Your task to perform on an android device: open chrome privacy settings Image 0: 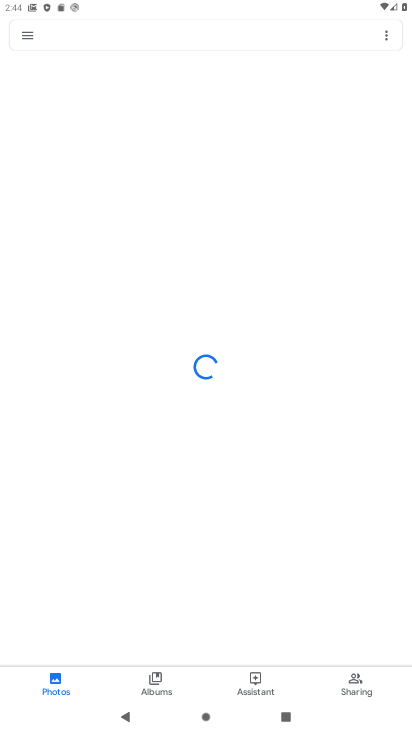
Step 0: press home button
Your task to perform on an android device: open chrome privacy settings Image 1: 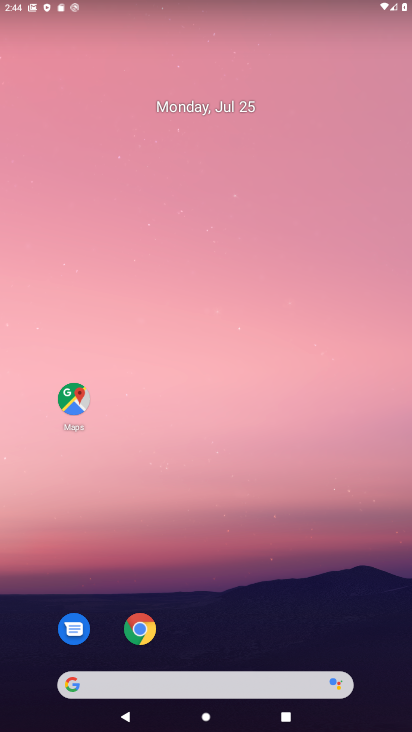
Step 1: drag from (239, 623) to (177, 148)
Your task to perform on an android device: open chrome privacy settings Image 2: 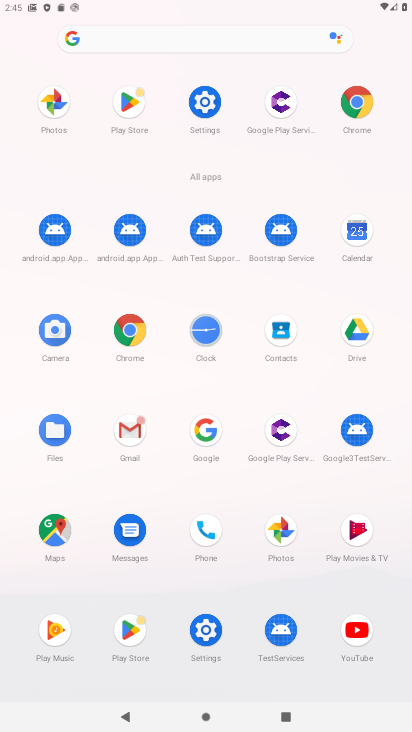
Step 2: click (344, 109)
Your task to perform on an android device: open chrome privacy settings Image 3: 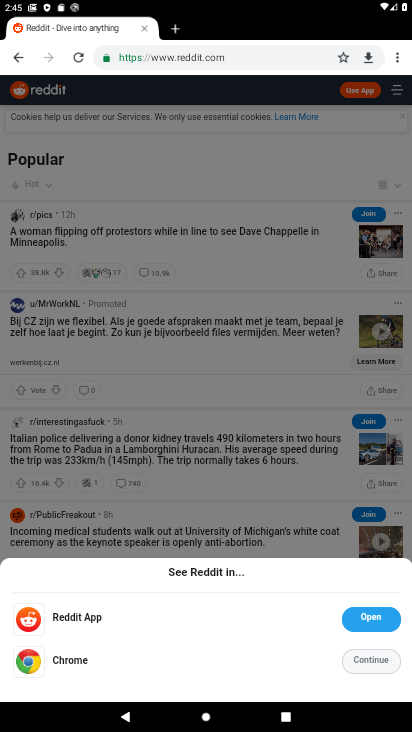
Step 3: click (398, 48)
Your task to perform on an android device: open chrome privacy settings Image 4: 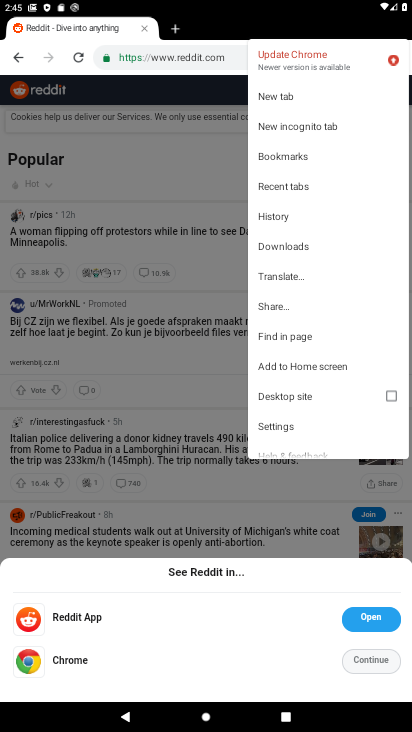
Step 4: click (307, 427)
Your task to perform on an android device: open chrome privacy settings Image 5: 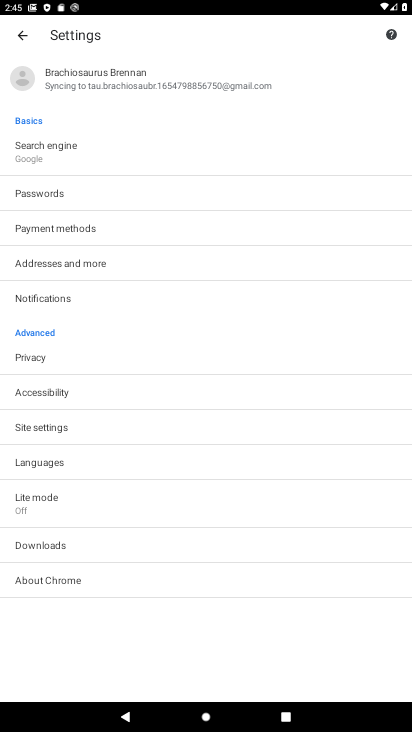
Step 5: click (162, 358)
Your task to perform on an android device: open chrome privacy settings Image 6: 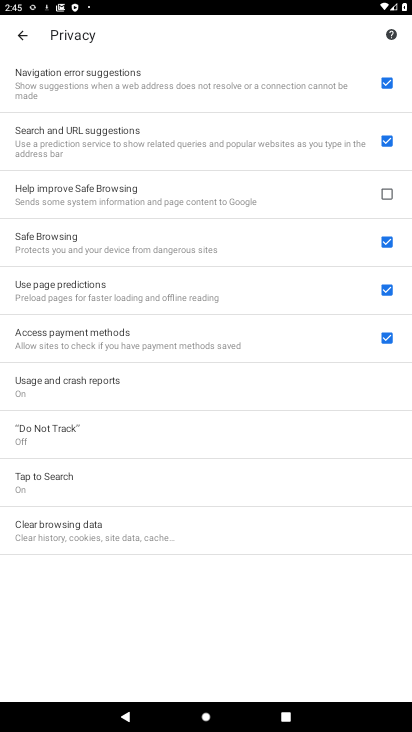
Step 6: task complete